Your task to perform on an android device: add a contact in the contacts app Image 0: 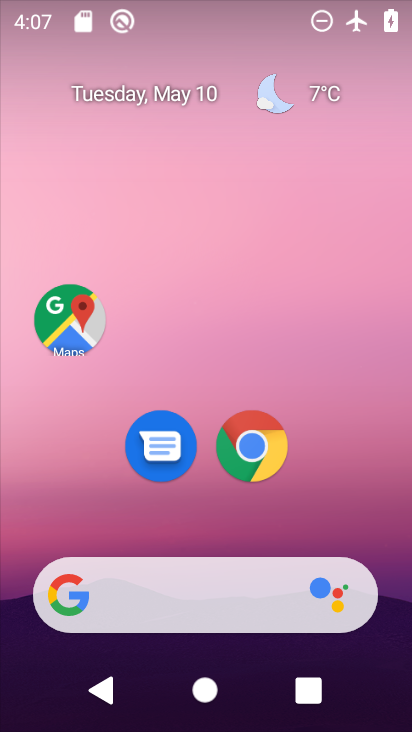
Step 0: drag from (293, 537) to (220, 48)
Your task to perform on an android device: add a contact in the contacts app Image 1: 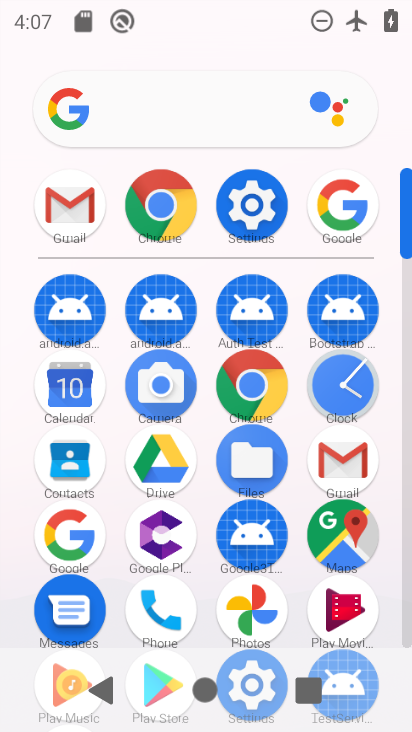
Step 1: click (263, 210)
Your task to perform on an android device: add a contact in the contacts app Image 2: 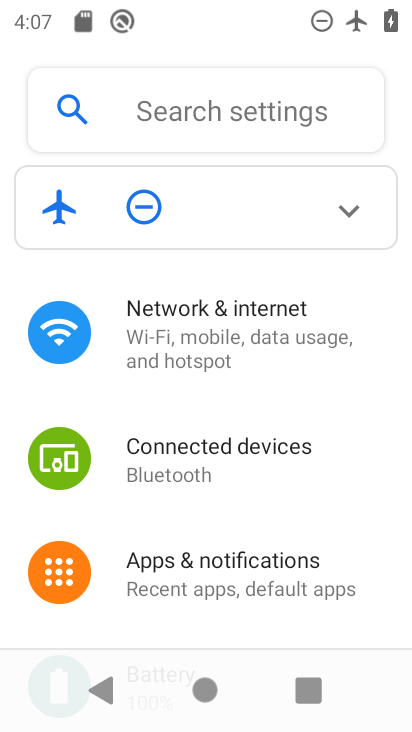
Step 2: press home button
Your task to perform on an android device: add a contact in the contacts app Image 3: 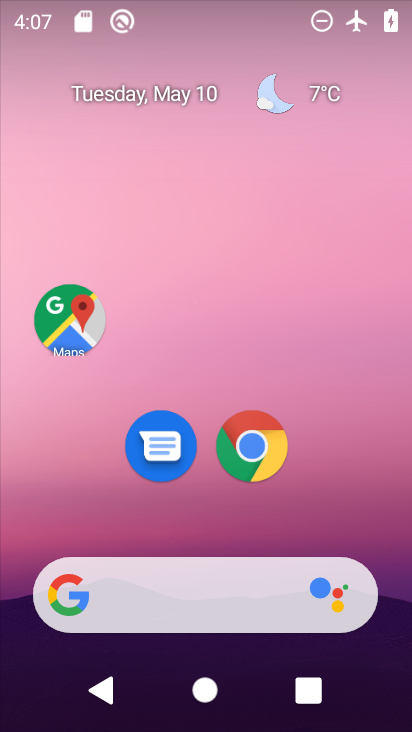
Step 3: drag from (232, 529) to (214, 96)
Your task to perform on an android device: add a contact in the contacts app Image 4: 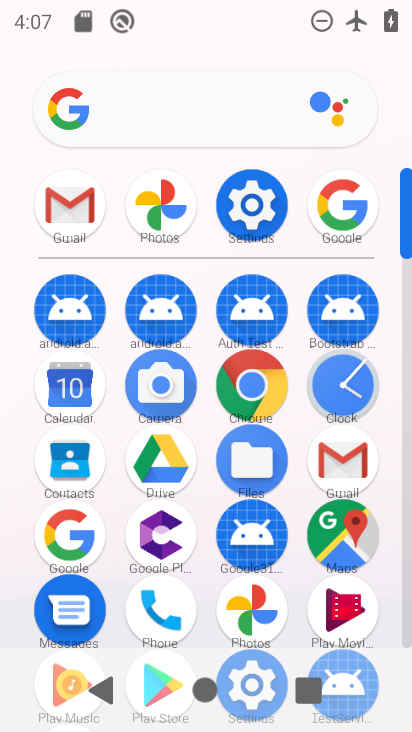
Step 4: click (73, 460)
Your task to perform on an android device: add a contact in the contacts app Image 5: 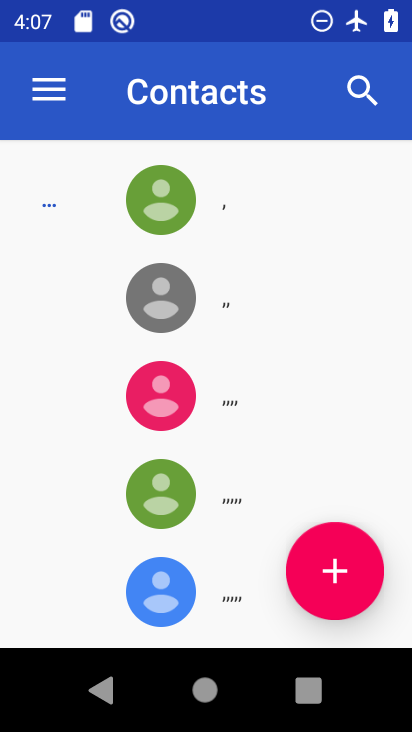
Step 5: click (333, 572)
Your task to perform on an android device: add a contact in the contacts app Image 6: 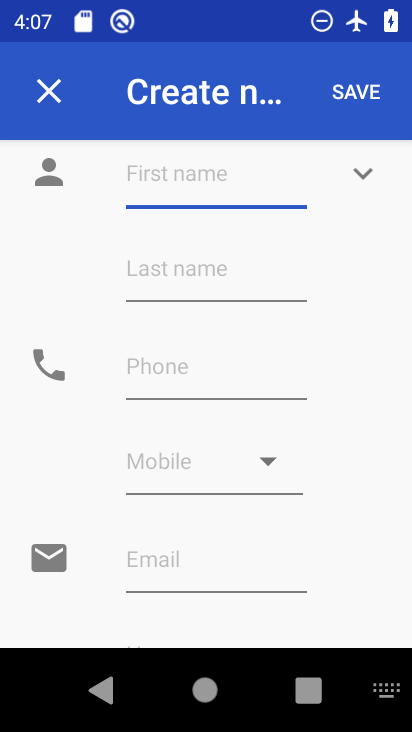
Step 6: type "fgsd"
Your task to perform on an android device: add a contact in the contacts app Image 7: 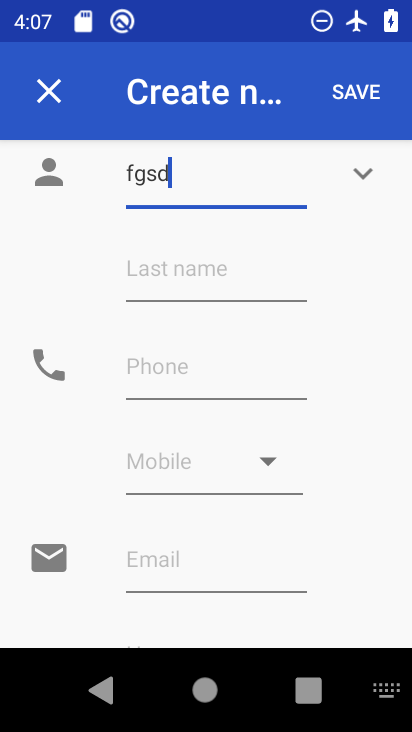
Step 7: click (173, 263)
Your task to perform on an android device: add a contact in the contacts app Image 8: 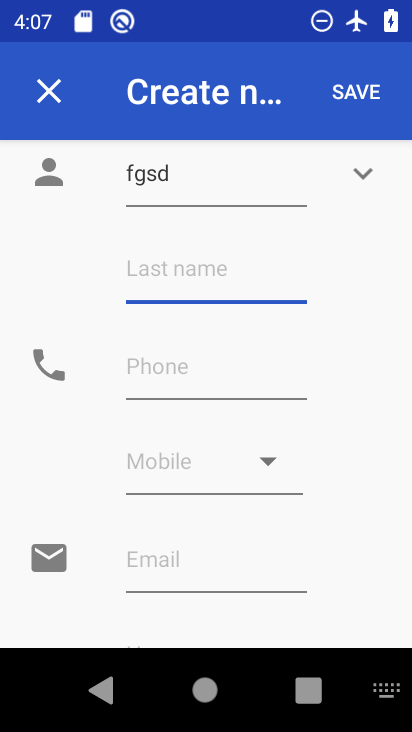
Step 8: type "dfgsdfg"
Your task to perform on an android device: add a contact in the contacts app Image 9: 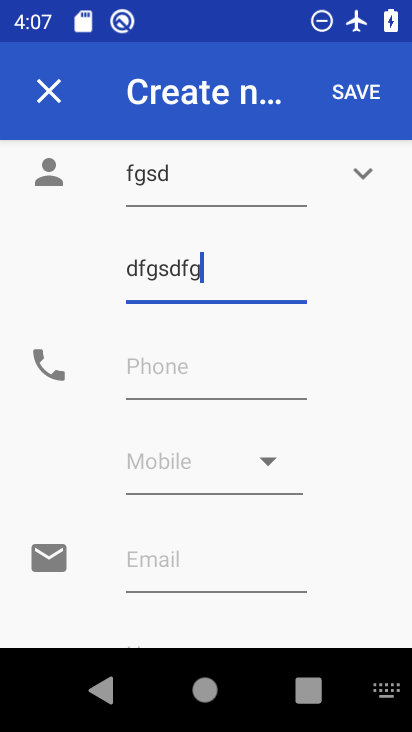
Step 9: type ""
Your task to perform on an android device: add a contact in the contacts app Image 10: 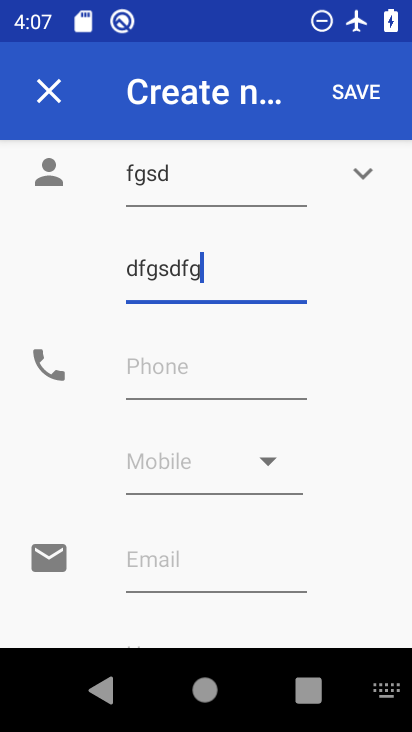
Step 10: click (248, 360)
Your task to perform on an android device: add a contact in the contacts app Image 11: 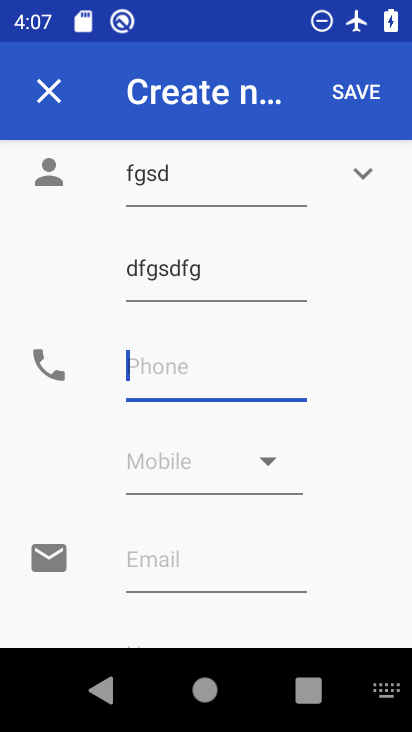
Step 11: type "4563456345"
Your task to perform on an android device: add a contact in the contacts app Image 12: 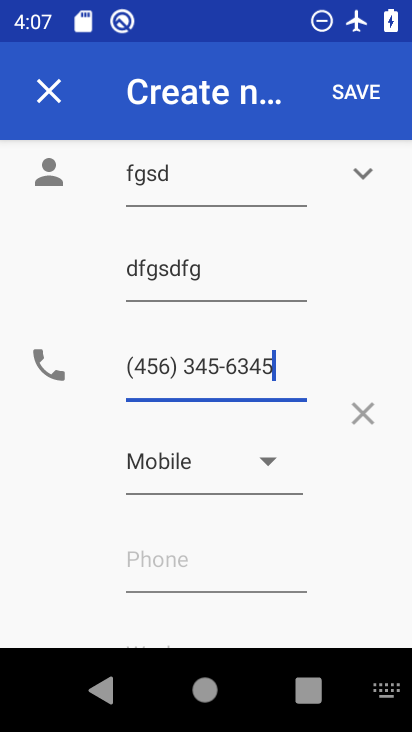
Step 12: type ""
Your task to perform on an android device: add a contact in the contacts app Image 13: 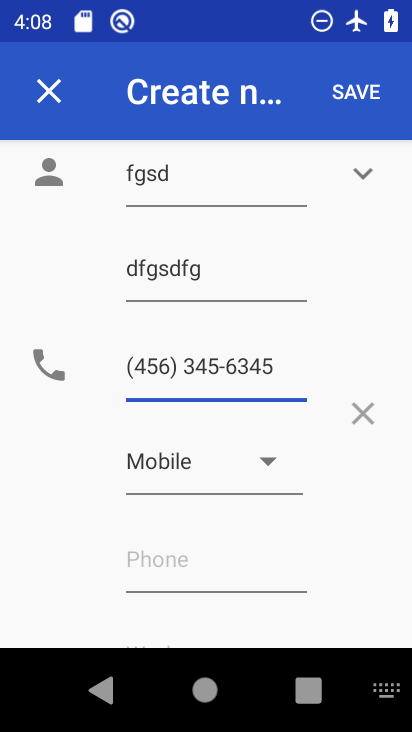
Step 13: click (348, 101)
Your task to perform on an android device: add a contact in the contacts app Image 14: 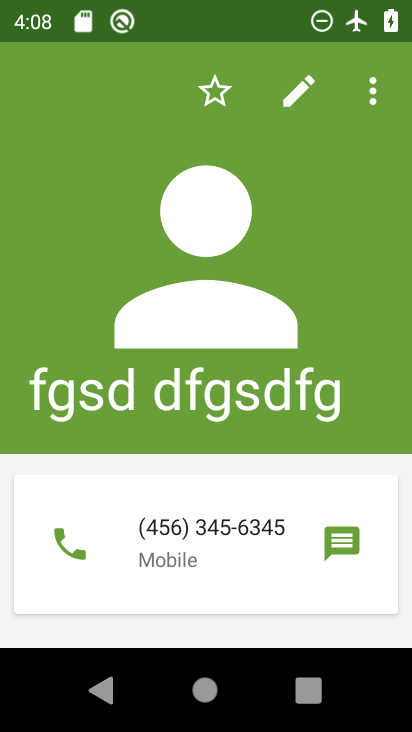
Step 14: task complete